Your task to perform on an android device: turn on data saver in the chrome app Image 0: 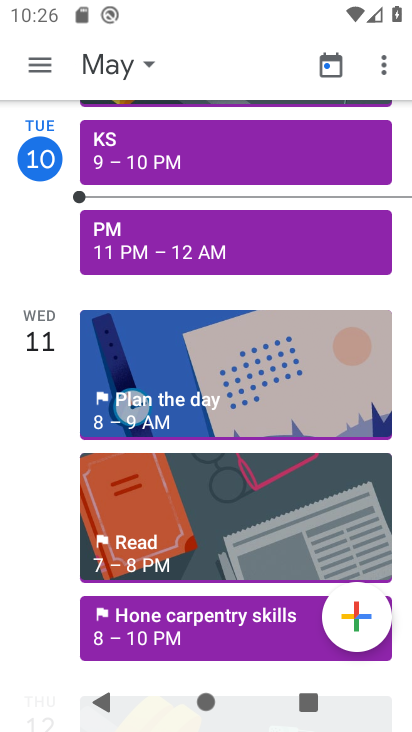
Step 0: press home button
Your task to perform on an android device: turn on data saver in the chrome app Image 1: 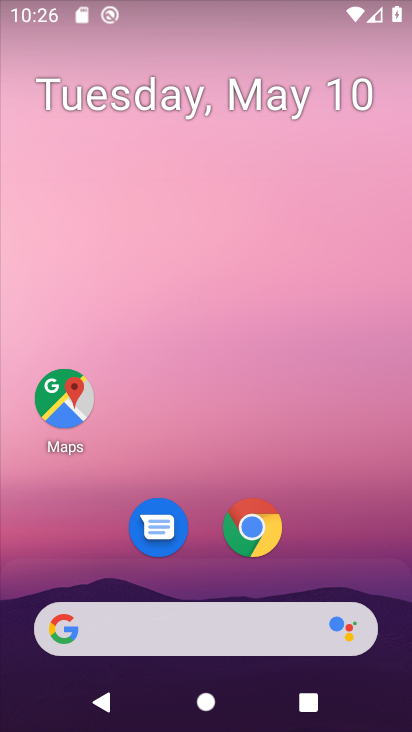
Step 1: click (267, 529)
Your task to perform on an android device: turn on data saver in the chrome app Image 2: 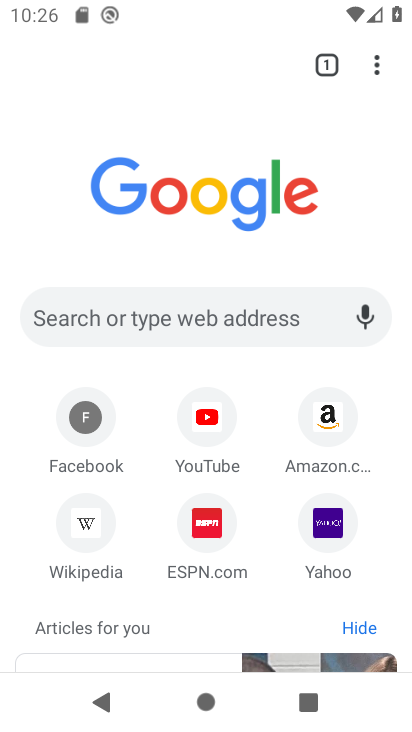
Step 2: click (380, 69)
Your task to perform on an android device: turn on data saver in the chrome app Image 3: 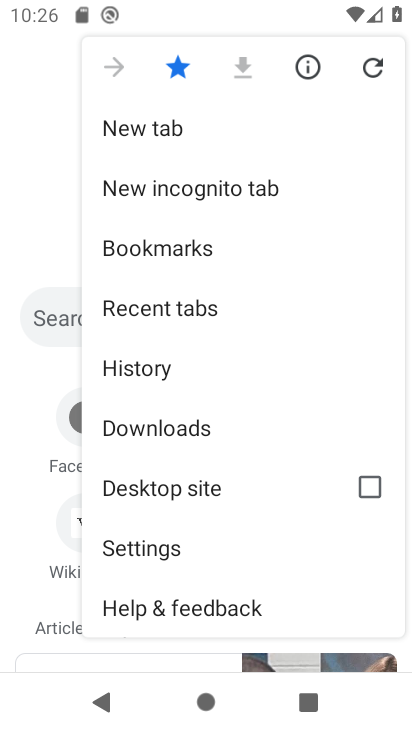
Step 3: click (167, 547)
Your task to perform on an android device: turn on data saver in the chrome app Image 4: 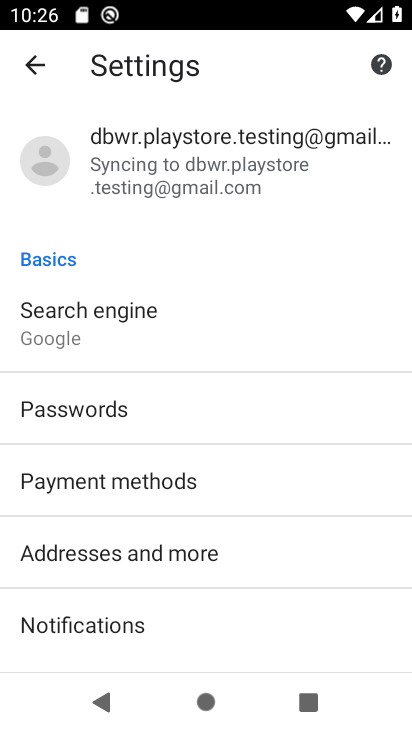
Step 4: drag from (191, 547) to (139, 228)
Your task to perform on an android device: turn on data saver in the chrome app Image 5: 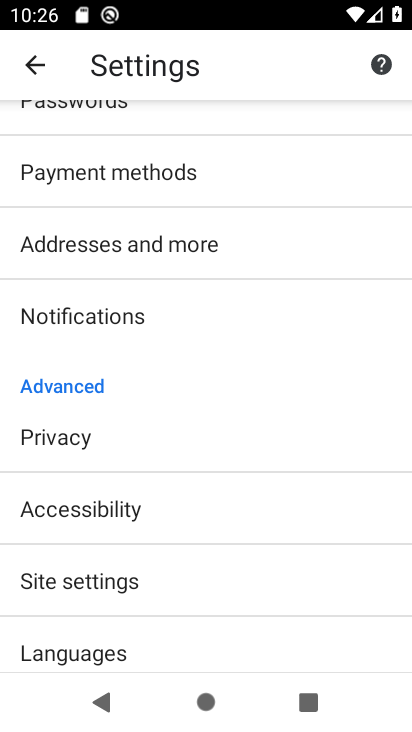
Step 5: drag from (182, 580) to (143, 280)
Your task to perform on an android device: turn on data saver in the chrome app Image 6: 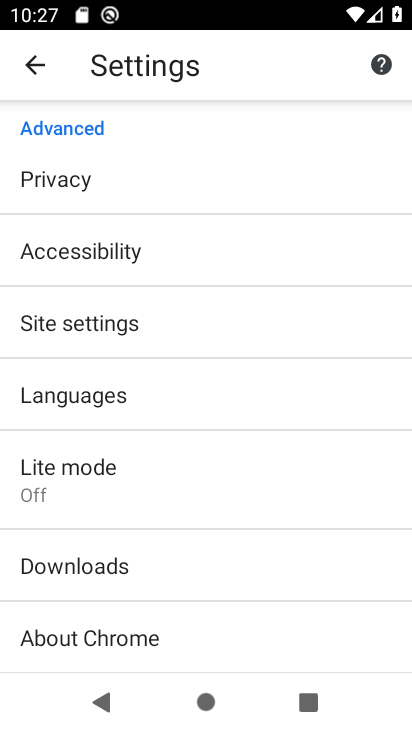
Step 6: click (119, 473)
Your task to perform on an android device: turn on data saver in the chrome app Image 7: 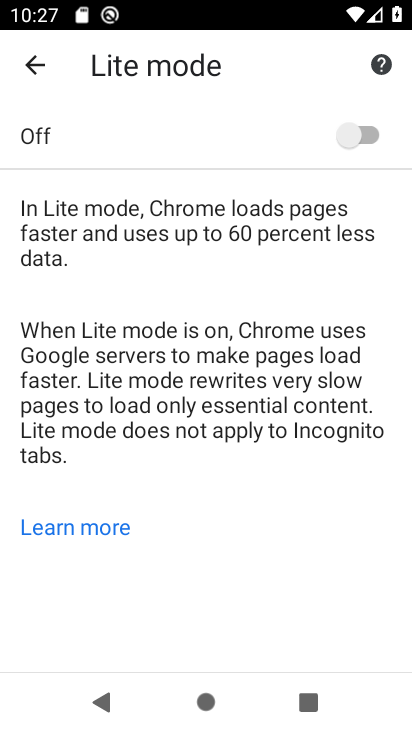
Step 7: click (353, 124)
Your task to perform on an android device: turn on data saver in the chrome app Image 8: 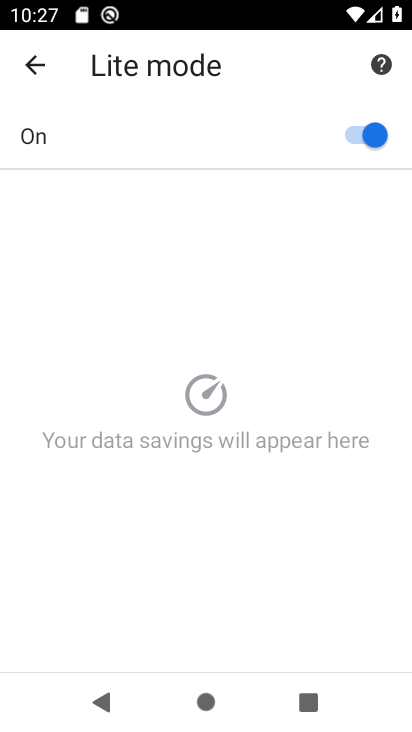
Step 8: task complete